Your task to perform on an android device: turn off smart reply in the gmail app Image 0: 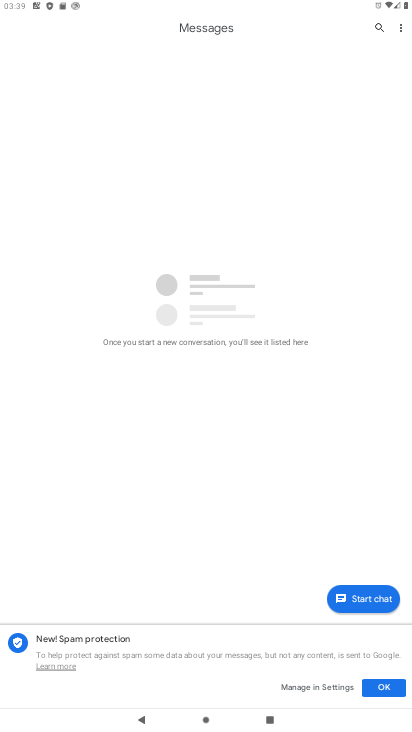
Step 0: press home button
Your task to perform on an android device: turn off smart reply in the gmail app Image 1: 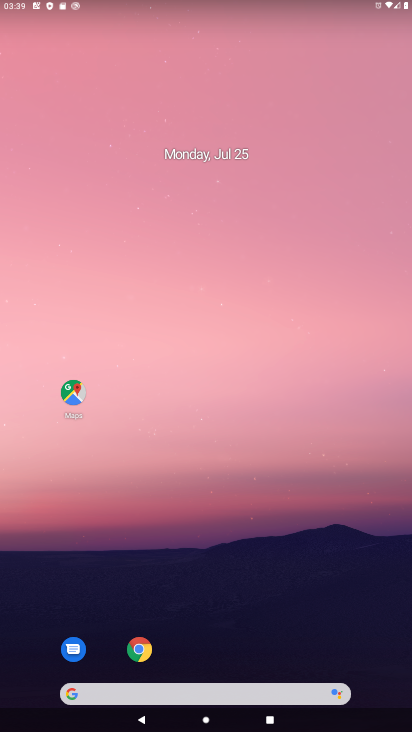
Step 1: drag from (368, 636) to (361, 238)
Your task to perform on an android device: turn off smart reply in the gmail app Image 2: 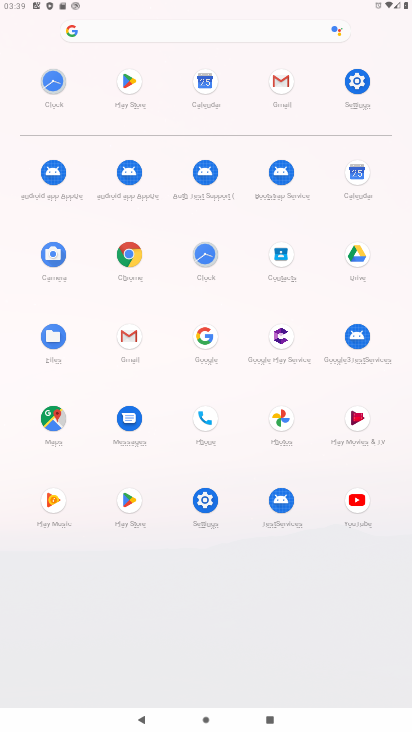
Step 2: click (129, 337)
Your task to perform on an android device: turn off smart reply in the gmail app Image 3: 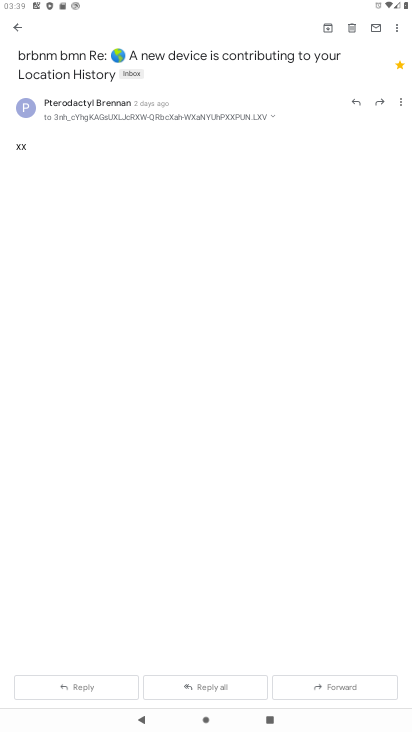
Step 3: press back button
Your task to perform on an android device: turn off smart reply in the gmail app Image 4: 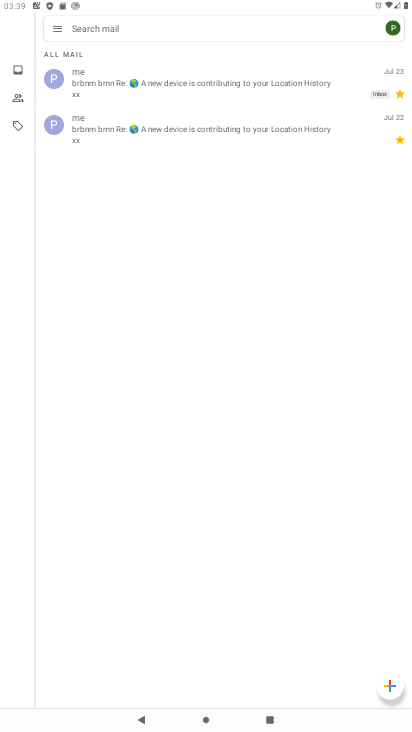
Step 4: click (61, 27)
Your task to perform on an android device: turn off smart reply in the gmail app Image 5: 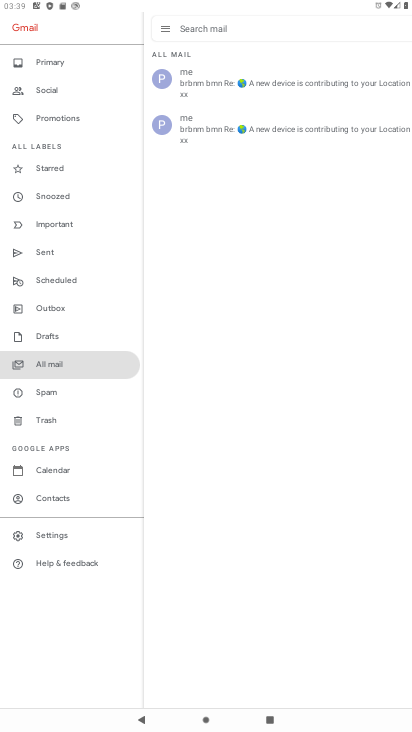
Step 5: click (60, 531)
Your task to perform on an android device: turn off smart reply in the gmail app Image 6: 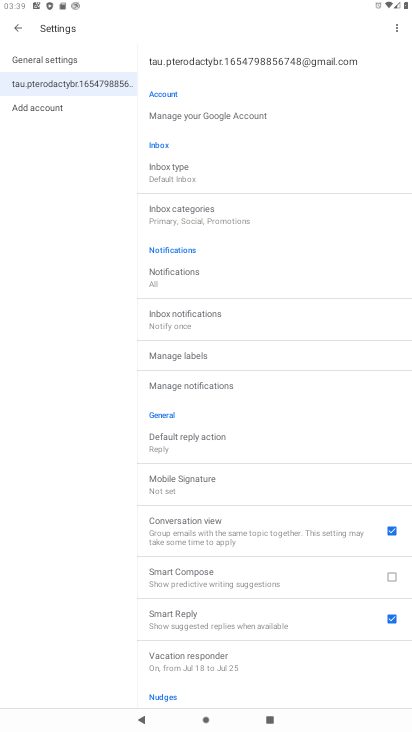
Step 6: drag from (254, 577) to (259, 324)
Your task to perform on an android device: turn off smart reply in the gmail app Image 7: 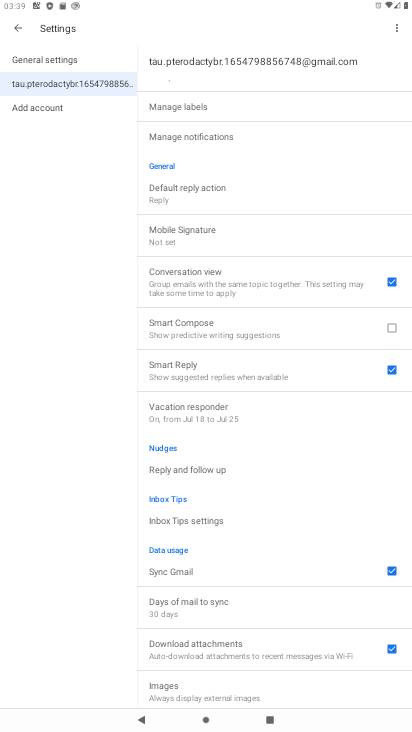
Step 7: click (388, 367)
Your task to perform on an android device: turn off smart reply in the gmail app Image 8: 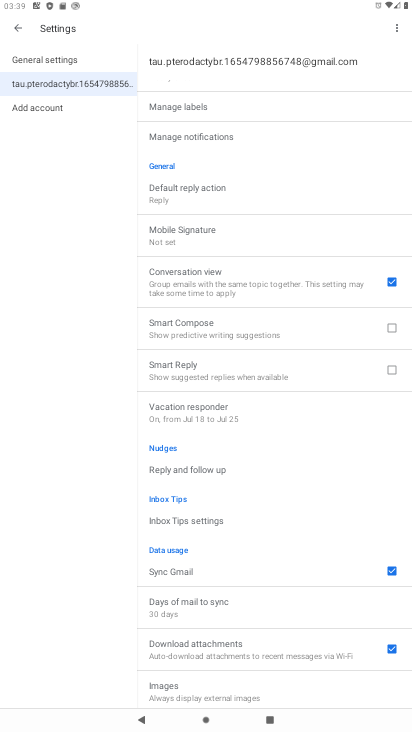
Step 8: task complete